Your task to perform on an android device: change text size in settings app Image 0: 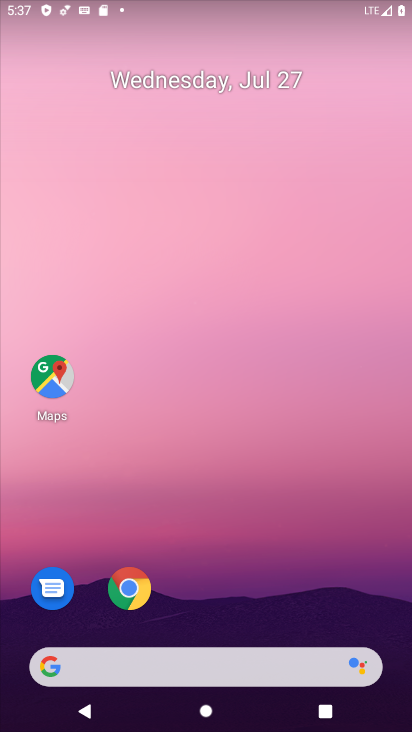
Step 0: drag from (304, 659) to (319, 3)
Your task to perform on an android device: change text size in settings app Image 1: 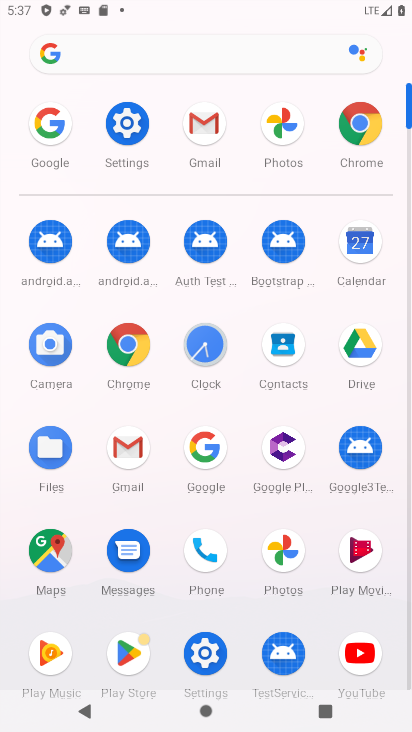
Step 1: click (126, 112)
Your task to perform on an android device: change text size in settings app Image 2: 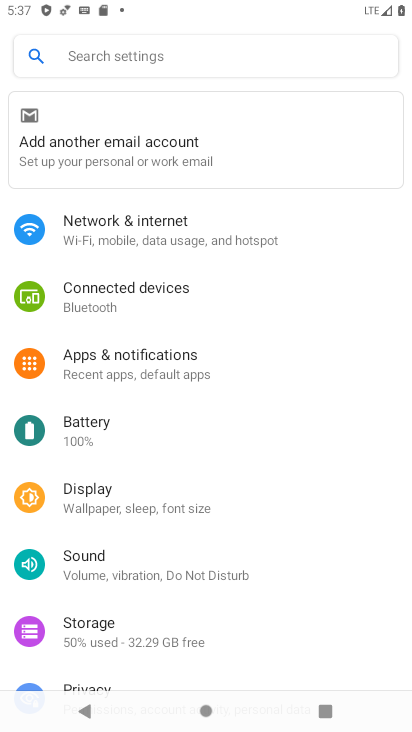
Step 2: drag from (176, 647) to (189, 197)
Your task to perform on an android device: change text size in settings app Image 3: 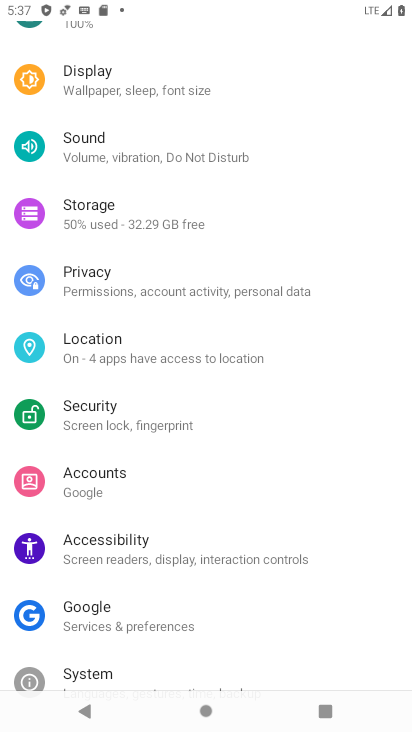
Step 3: drag from (188, 263) to (205, 711)
Your task to perform on an android device: change text size in settings app Image 4: 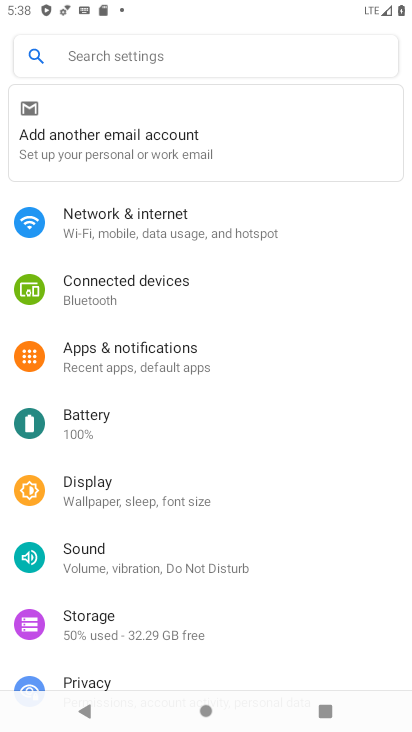
Step 4: drag from (197, 556) to (252, 165)
Your task to perform on an android device: change text size in settings app Image 5: 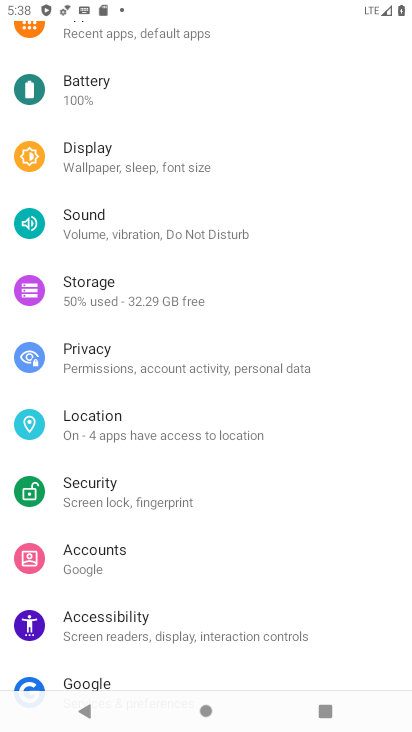
Step 5: drag from (263, 671) to (303, 225)
Your task to perform on an android device: change text size in settings app Image 6: 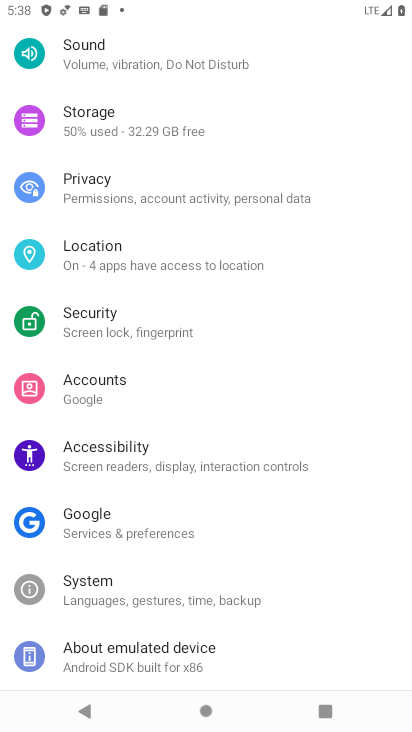
Step 6: click (209, 452)
Your task to perform on an android device: change text size in settings app Image 7: 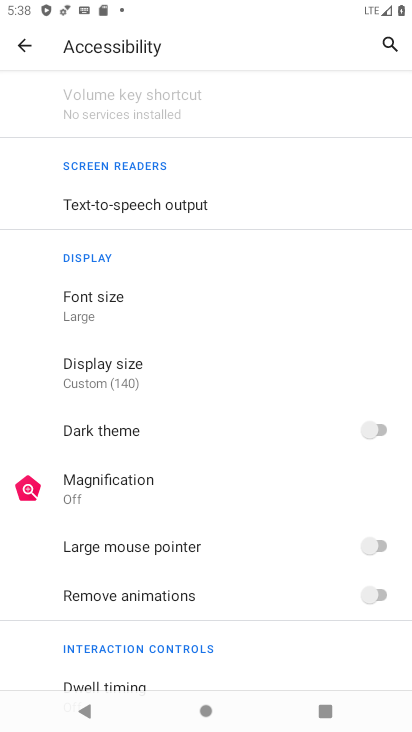
Step 7: click (117, 300)
Your task to perform on an android device: change text size in settings app Image 8: 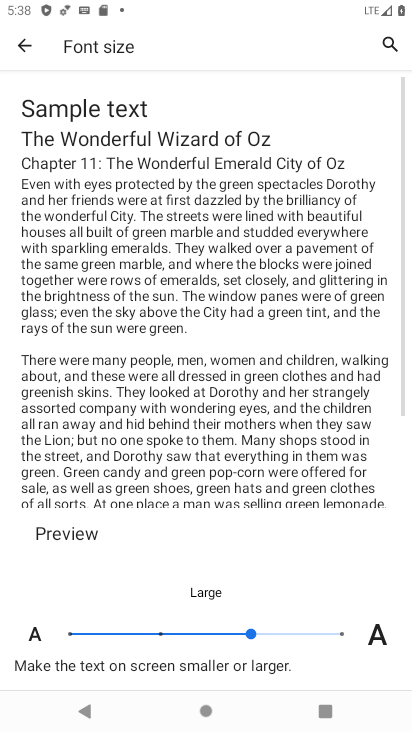
Step 8: click (337, 630)
Your task to perform on an android device: change text size in settings app Image 9: 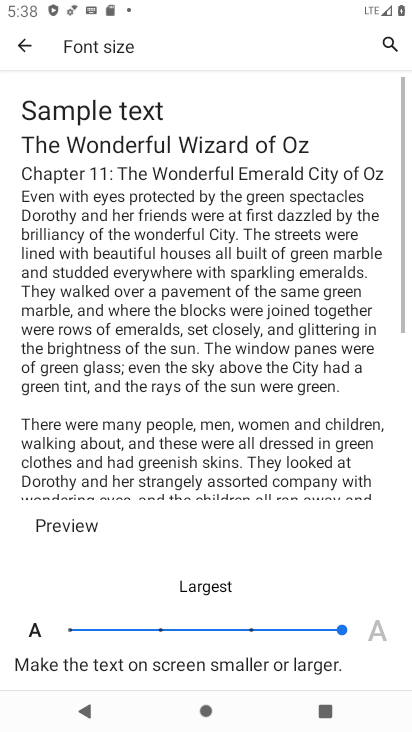
Step 9: task complete